Your task to perform on an android device: clear all cookies in the chrome app Image 0: 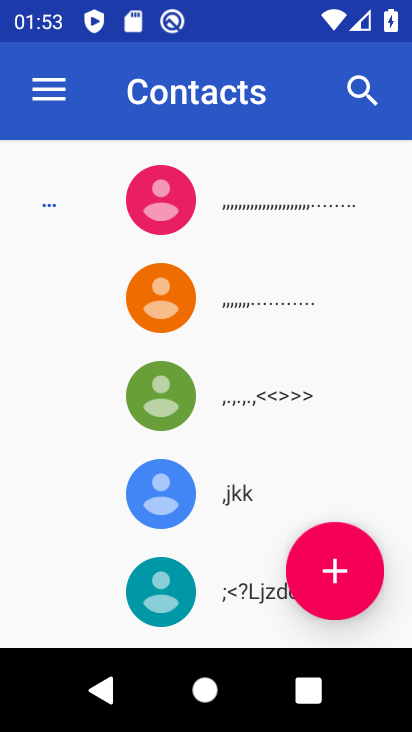
Step 0: press home button
Your task to perform on an android device: clear all cookies in the chrome app Image 1: 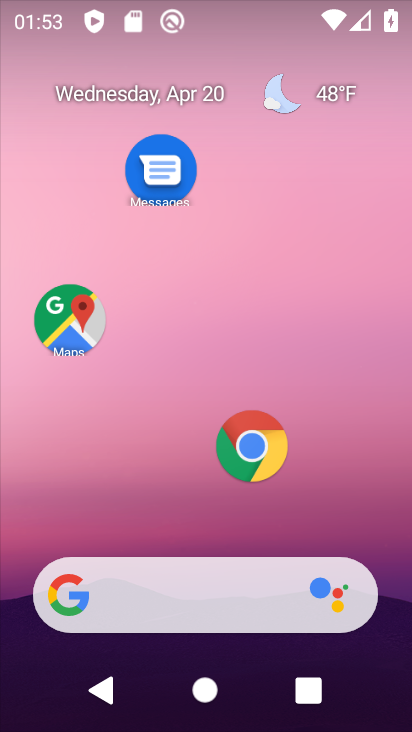
Step 1: click (252, 441)
Your task to perform on an android device: clear all cookies in the chrome app Image 2: 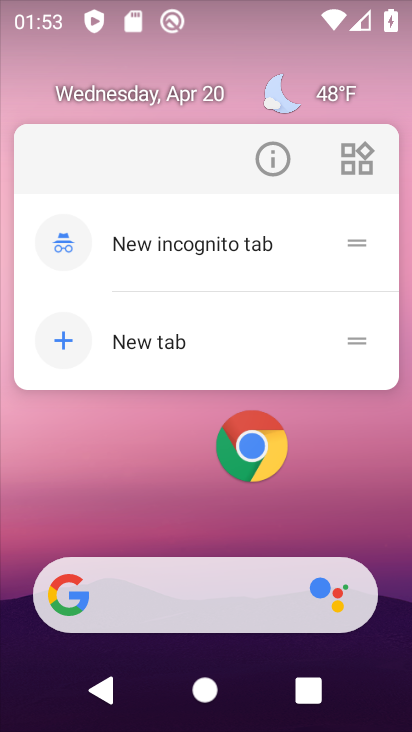
Step 2: click (252, 441)
Your task to perform on an android device: clear all cookies in the chrome app Image 3: 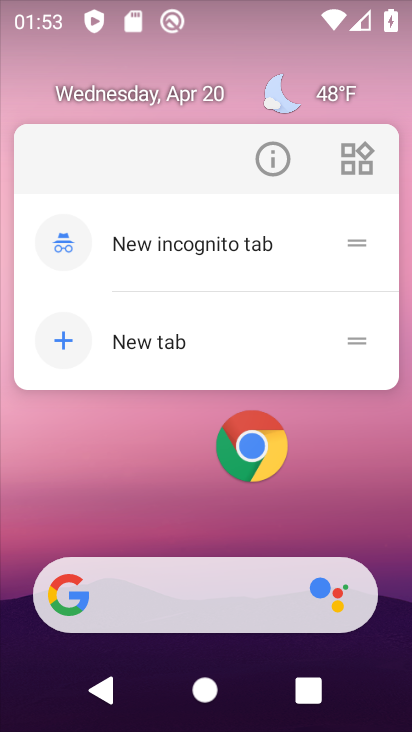
Step 3: click (248, 439)
Your task to perform on an android device: clear all cookies in the chrome app Image 4: 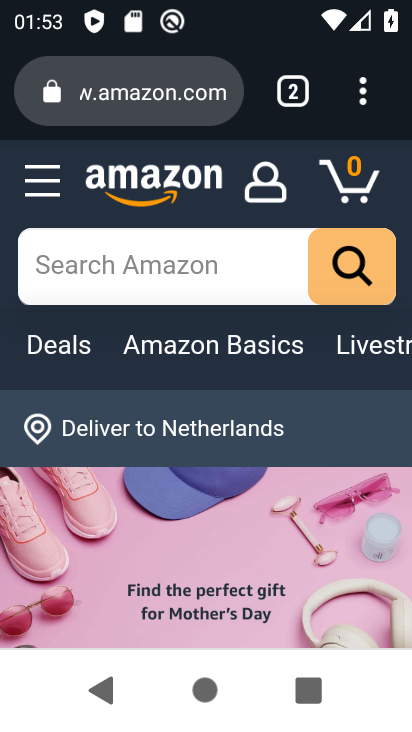
Step 4: click (362, 88)
Your task to perform on an android device: clear all cookies in the chrome app Image 5: 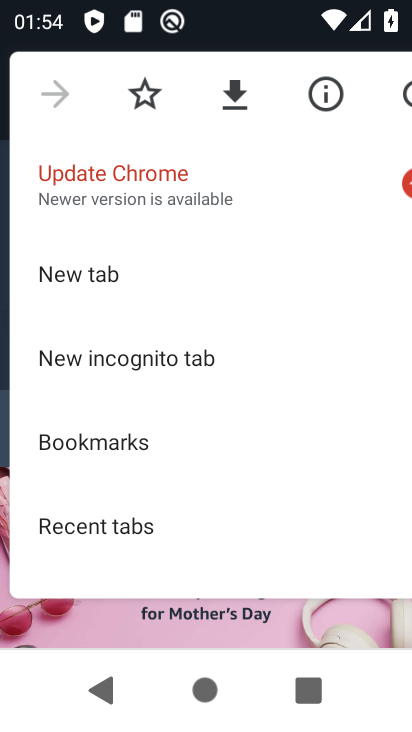
Step 5: drag from (261, 526) to (288, 146)
Your task to perform on an android device: clear all cookies in the chrome app Image 6: 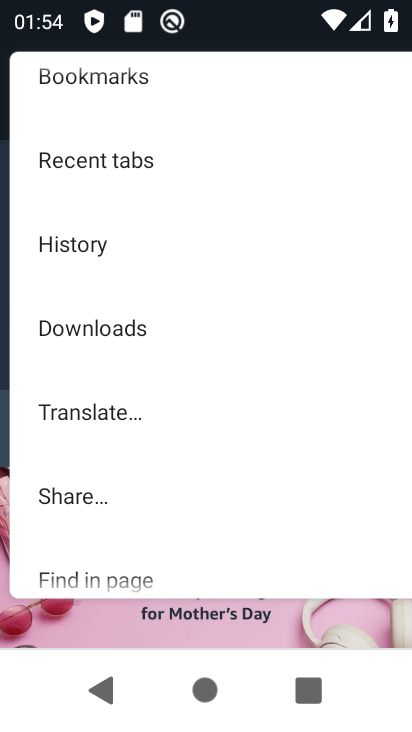
Step 6: click (124, 247)
Your task to perform on an android device: clear all cookies in the chrome app Image 7: 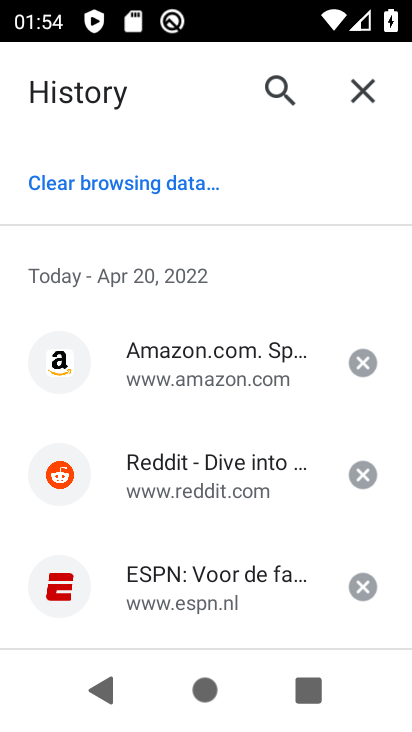
Step 7: click (106, 187)
Your task to perform on an android device: clear all cookies in the chrome app Image 8: 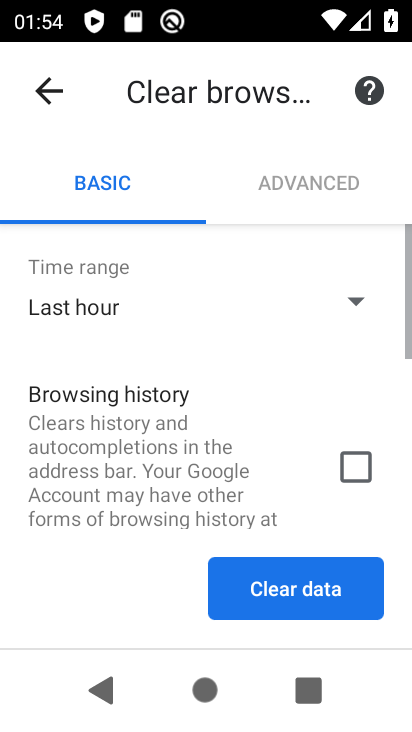
Step 8: drag from (257, 489) to (254, 250)
Your task to perform on an android device: clear all cookies in the chrome app Image 9: 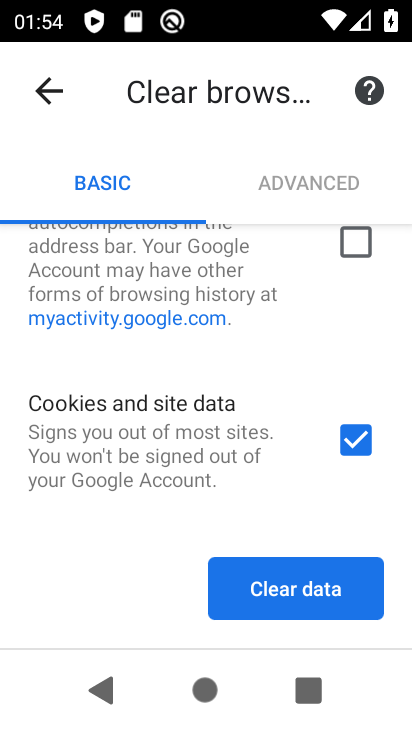
Step 9: drag from (296, 481) to (306, 233)
Your task to perform on an android device: clear all cookies in the chrome app Image 10: 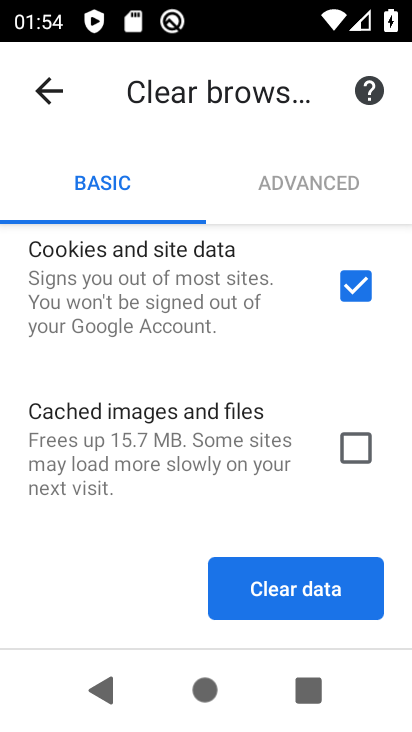
Step 10: click (308, 590)
Your task to perform on an android device: clear all cookies in the chrome app Image 11: 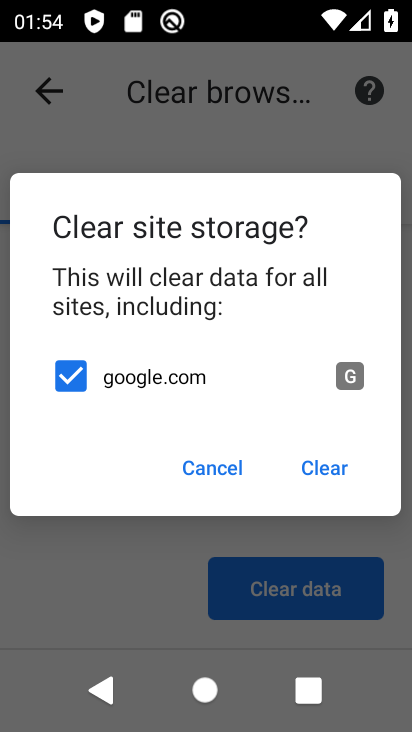
Step 11: click (325, 467)
Your task to perform on an android device: clear all cookies in the chrome app Image 12: 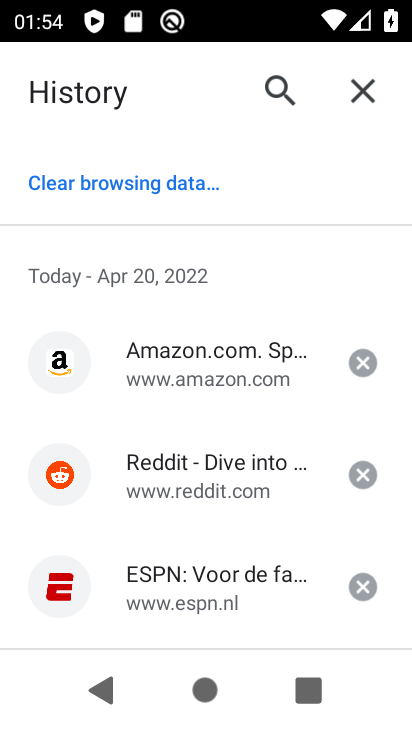
Step 12: task complete